Your task to perform on an android device: Show me popular videos on Youtube Image 0: 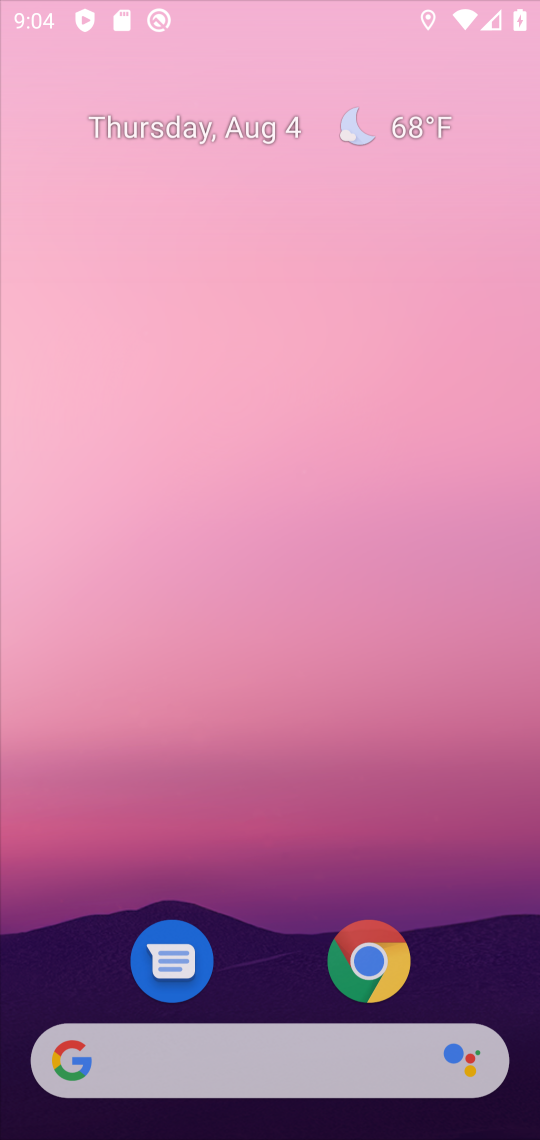
Step 0: click (346, 8)
Your task to perform on an android device: Show me popular videos on Youtube Image 1: 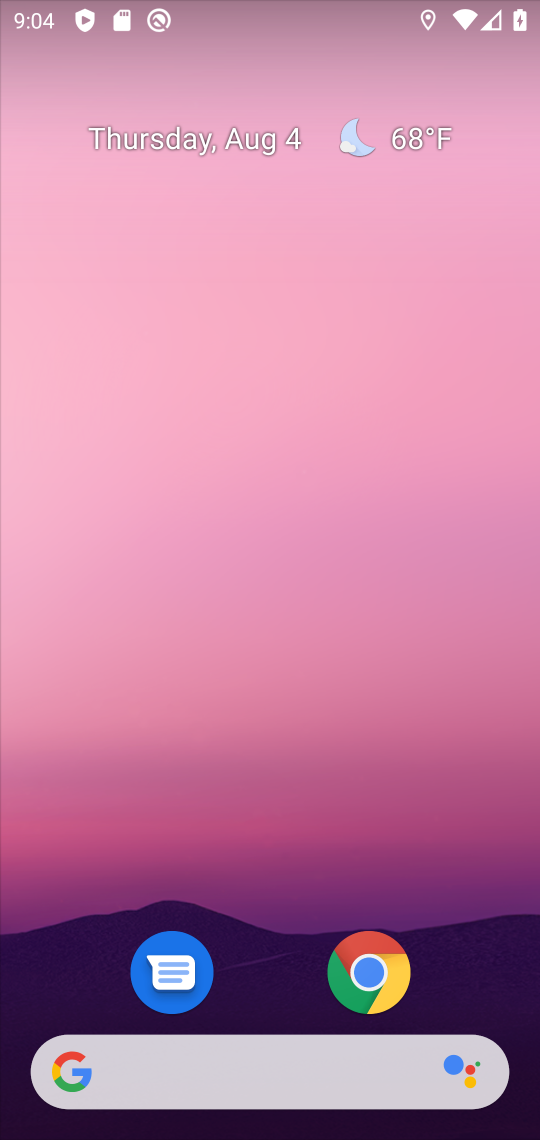
Step 1: drag from (272, 957) to (318, 1)
Your task to perform on an android device: Show me popular videos on Youtube Image 2: 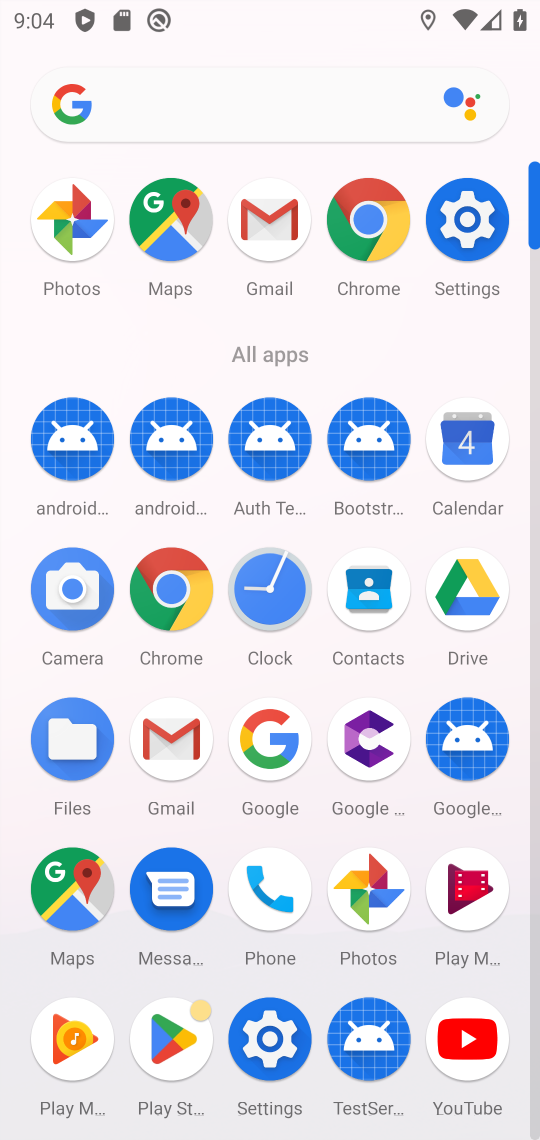
Step 2: click (461, 1041)
Your task to perform on an android device: Show me popular videos on Youtube Image 3: 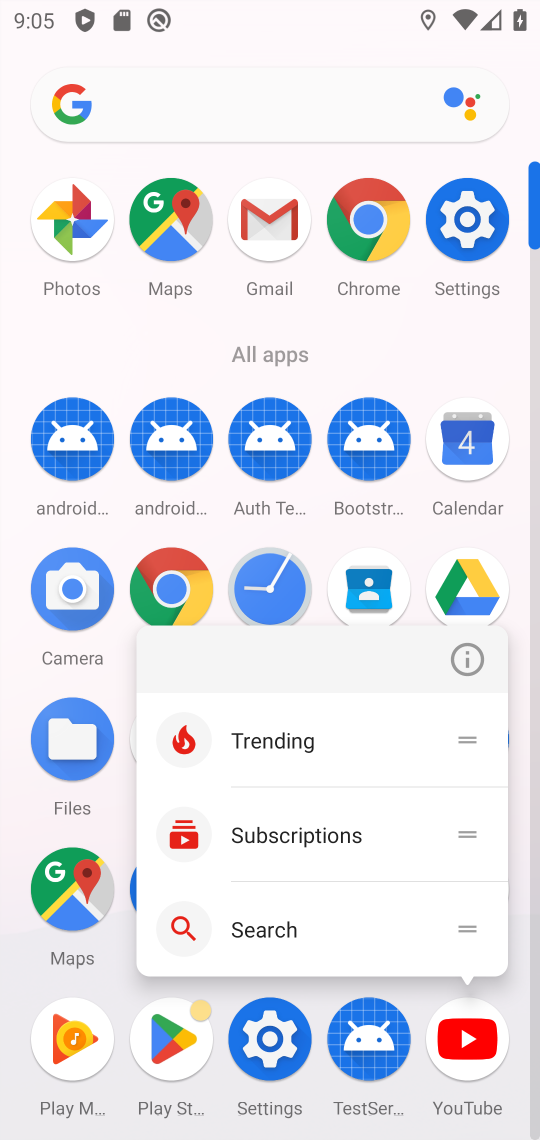
Step 3: click (461, 1038)
Your task to perform on an android device: Show me popular videos on Youtube Image 4: 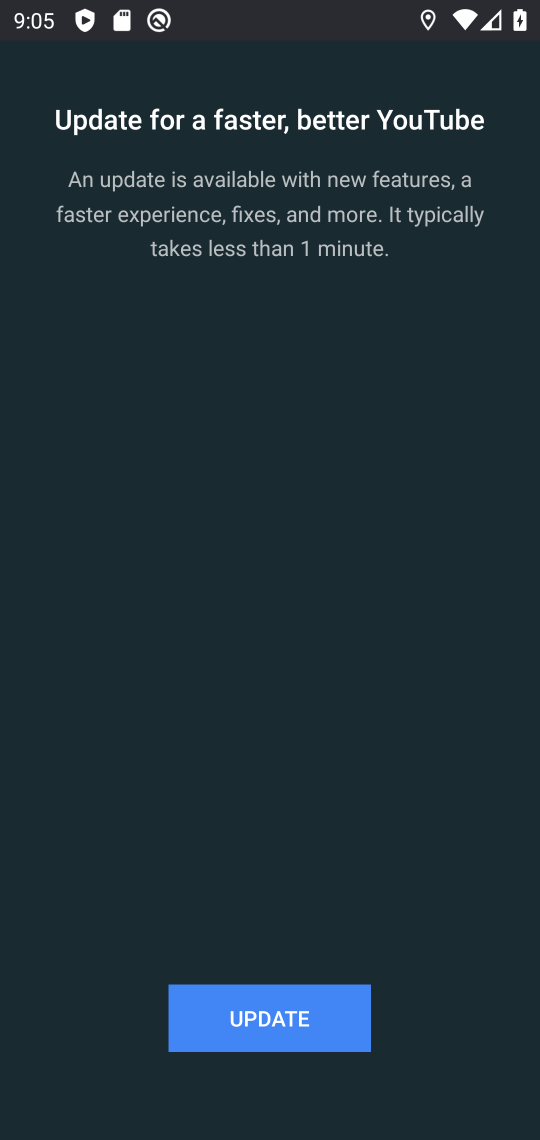
Step 4: click (337, 1016)
Your task to perform on an android device: Show me popular videos on Youtube Image 5: 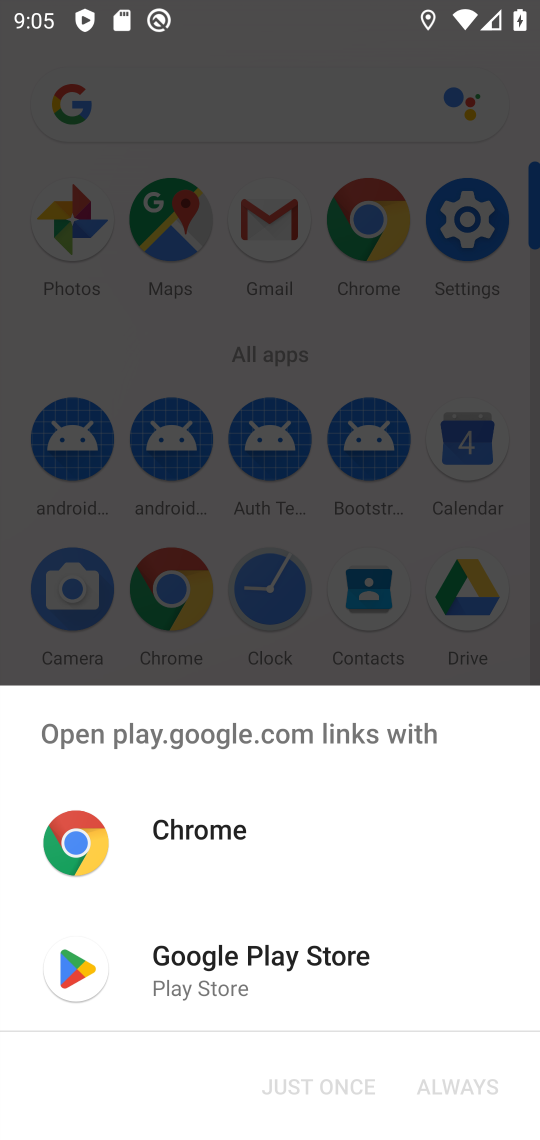
Step 5: click (211, 981)
Your task to perform on an android device: Show me popular videos on Youtube Image 6: 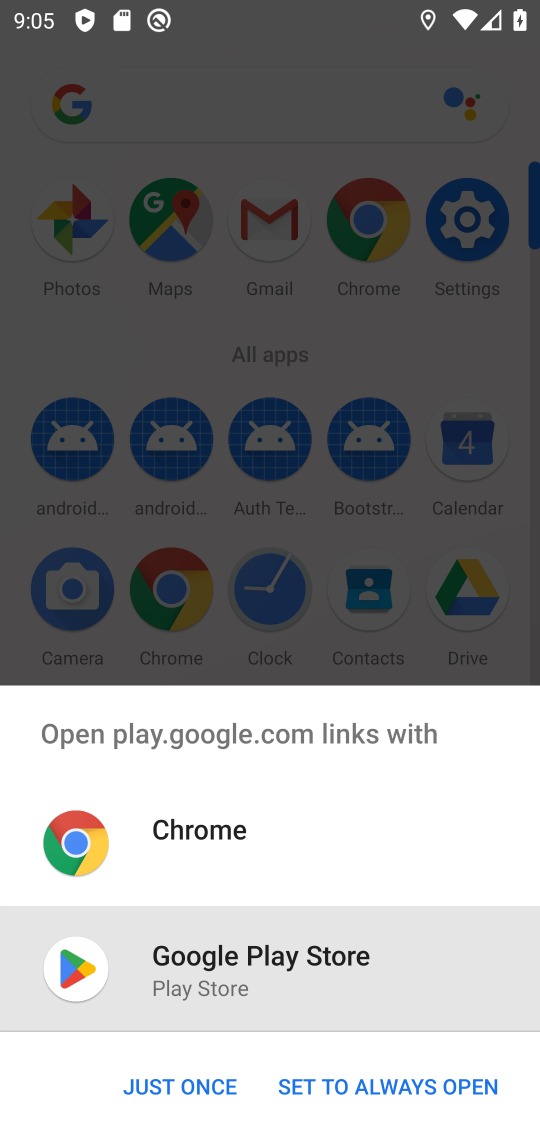
Step 6: click (187, 1079)
Your task to perform on an android device: Show me popular videos on Youtube Image 7: 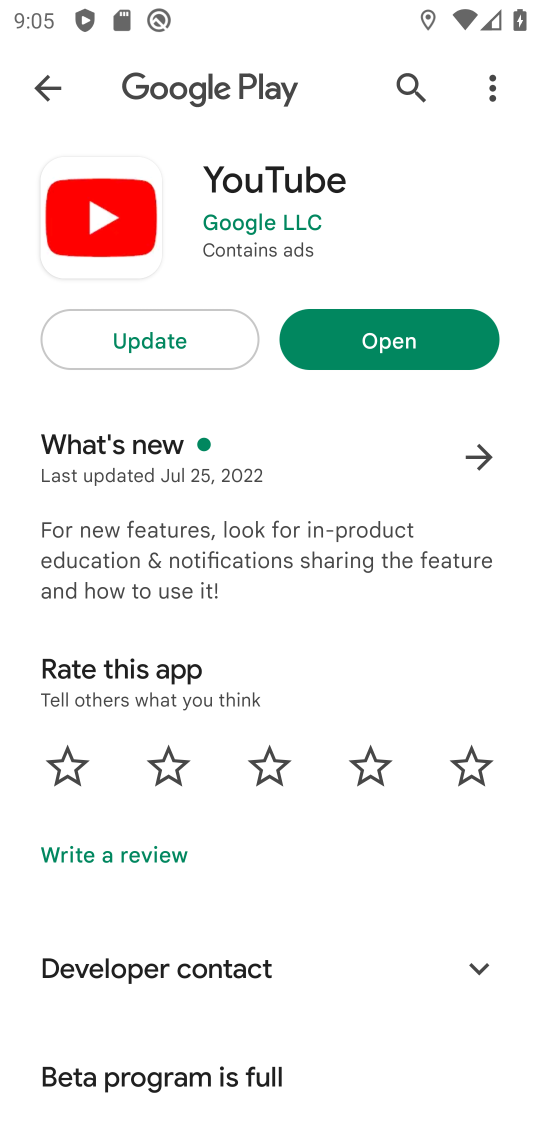
Step 7: click (188, 347)
Your task to perform on an android device: Show me popular videos on Youtube Image 8: 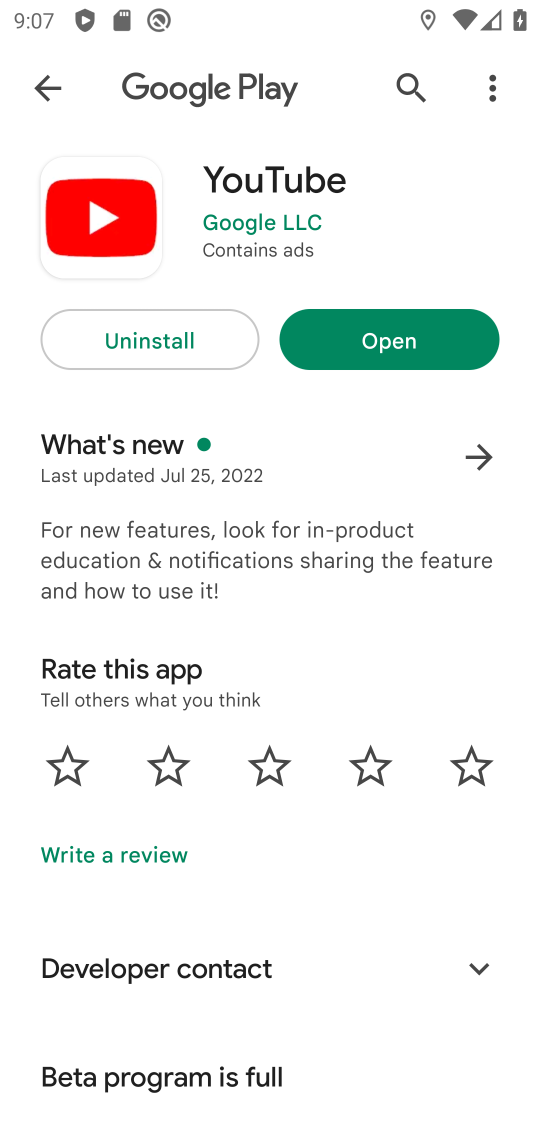
Step 8: click (461, 347)
Your task to perform on an android device: Show me popular videos on Youtube Image 9: 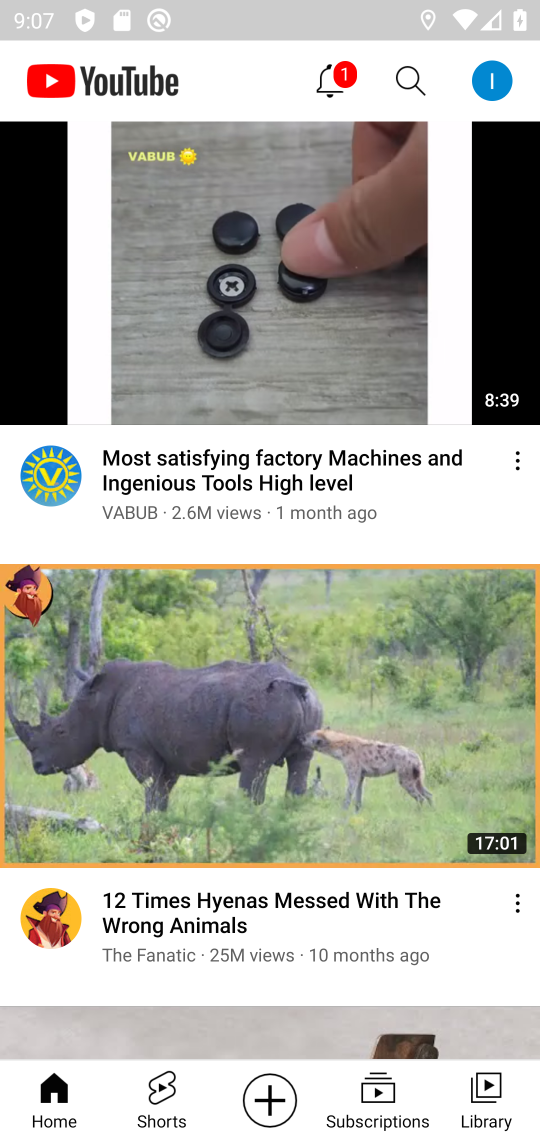
Step 9: click (413, 83)
Your task to perform on an android device: Show me popular videos on Youtube Image 10: 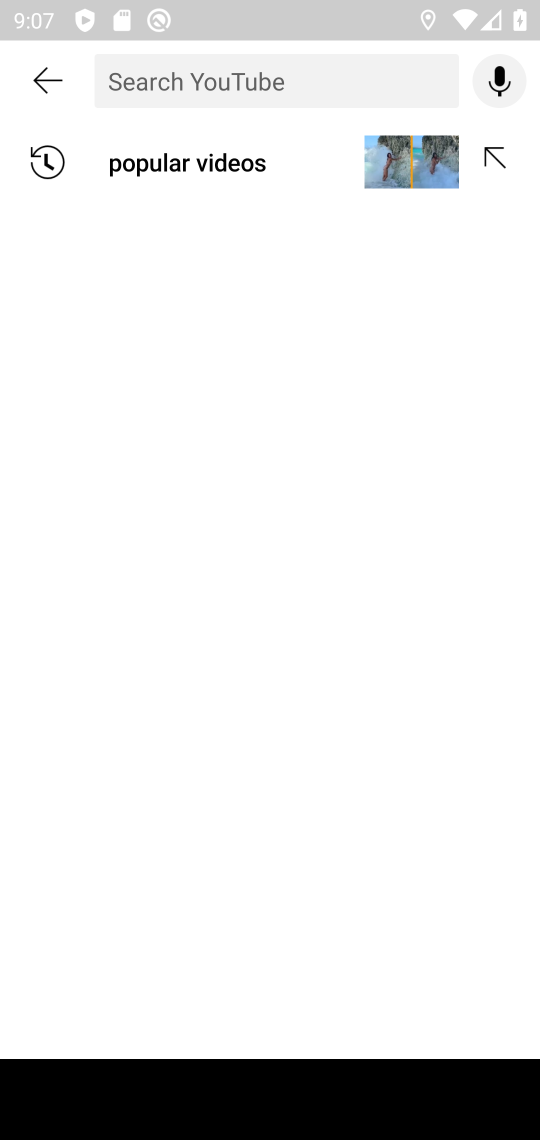
Step 10: click (253, 165)
Your task to perform on an android device: Show me popular videos on Youtube Image 11: 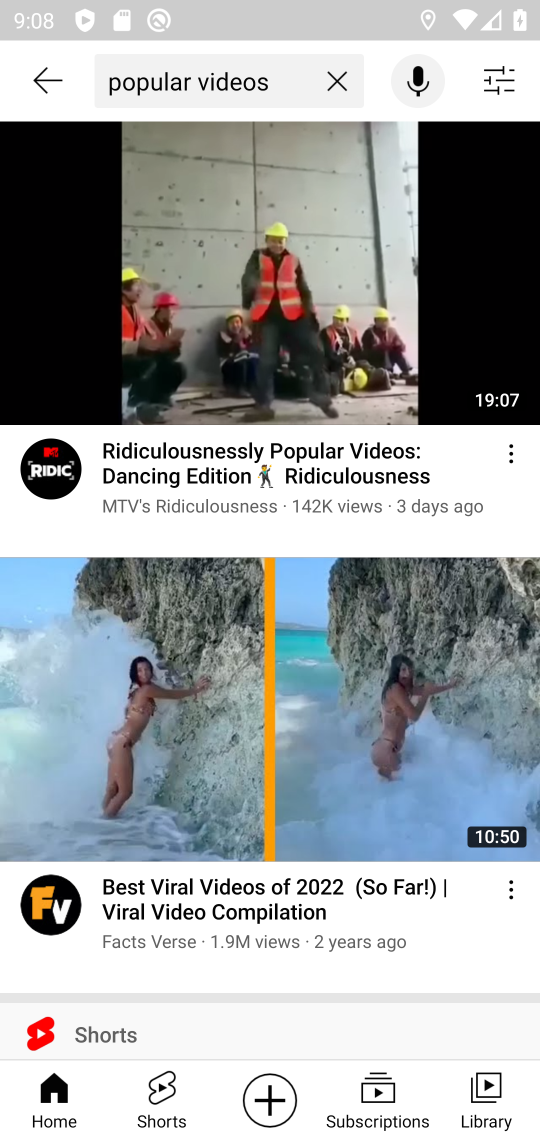
Step 11: task complete